Your task to perform on an android device: change notifications settings Image 0: 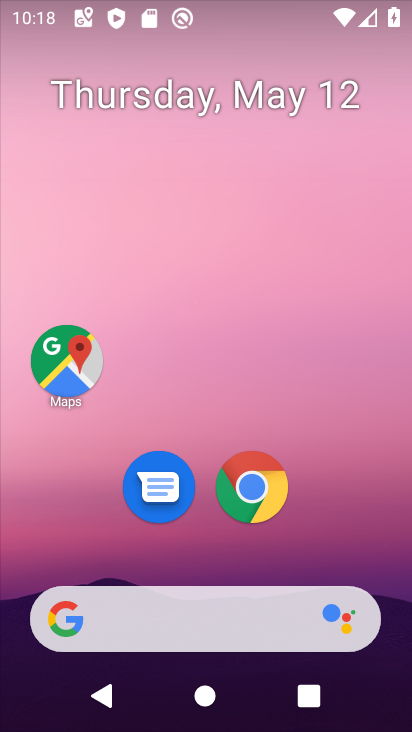
Step 0: drag from (12, 682) to (222, 195)
Your task to perform on an android device: change notifications settings Image 1: 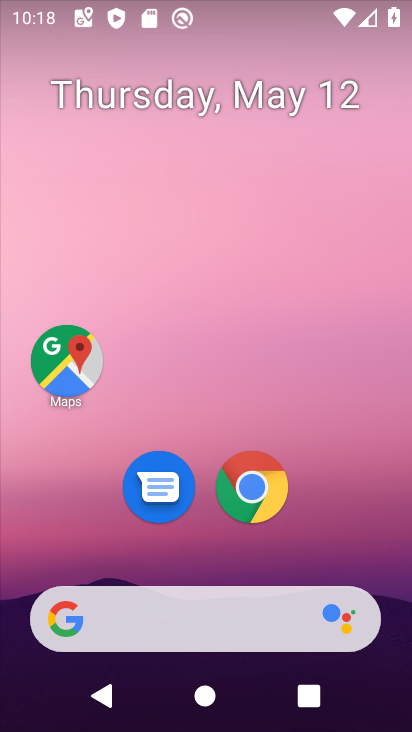
Step 1: drag from (111, 450) to (272, 143)
Your task to perform on an android device: change notifications settings Image 2: 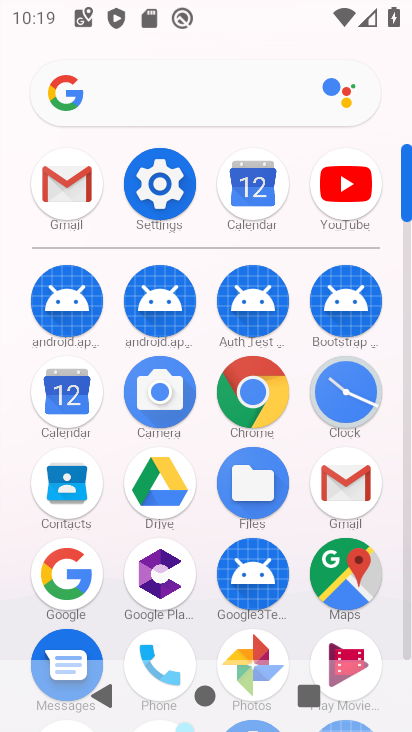
Step 2: click (167, 175)
Your task to perform on an android device: change notifications settings Image 3: 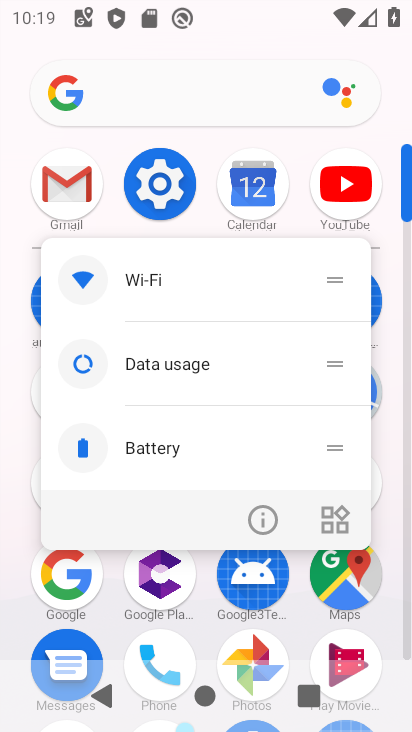
Step 3: press back button
Your task to perform on an android device: change notifications settings Image 4: 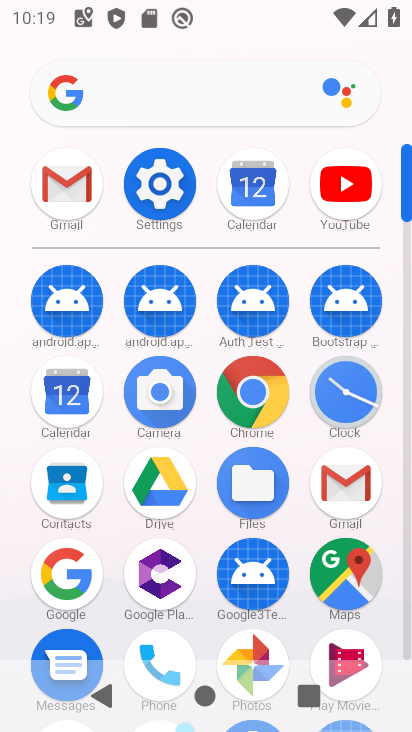
Step 4: click (166, 179)
Your task to perform on an android device: change notifications settings Image 5: 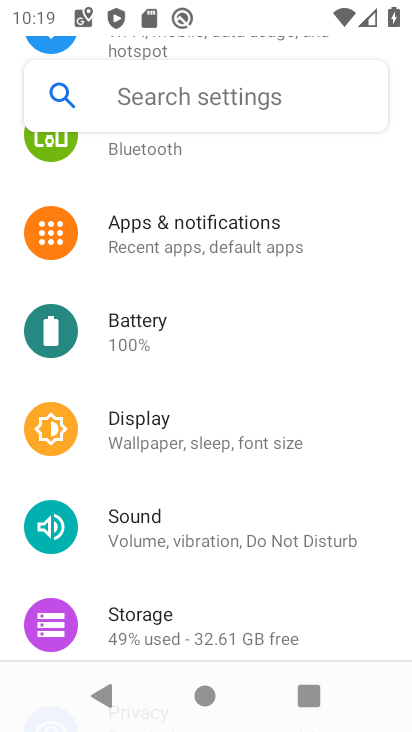
Step 5: click (180, 221)
Your task to perform on an android device: change notifications settings Image 6: 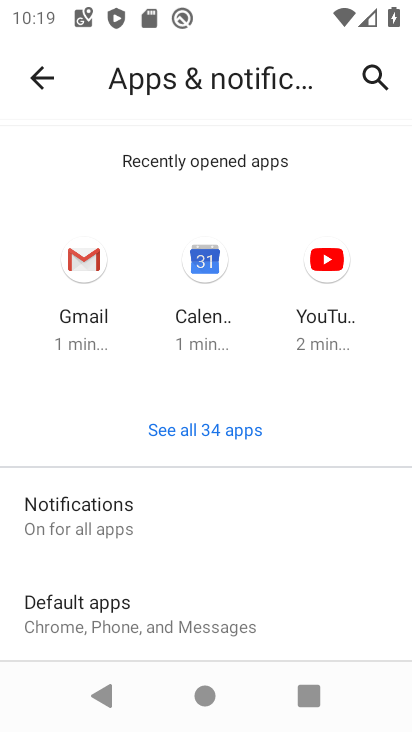
Step 6: click (150, 526)
Your task to perform on an android device: change notifications settings Image 7: 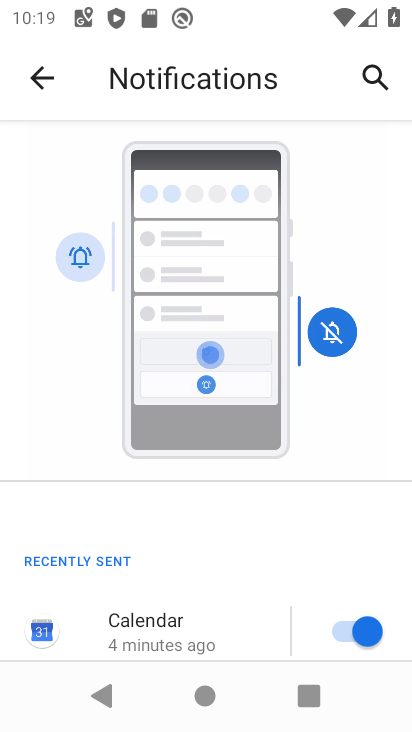
Step 7: task complete